Your task to perform on an android device: set default search engine in the chrome app Image 0: 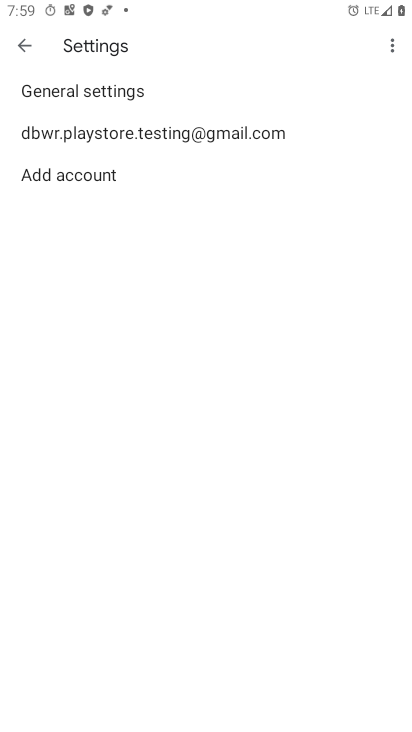
Step 0: press home button
Your task to perform on an android device: set default search engine in the chrome app Image 1: 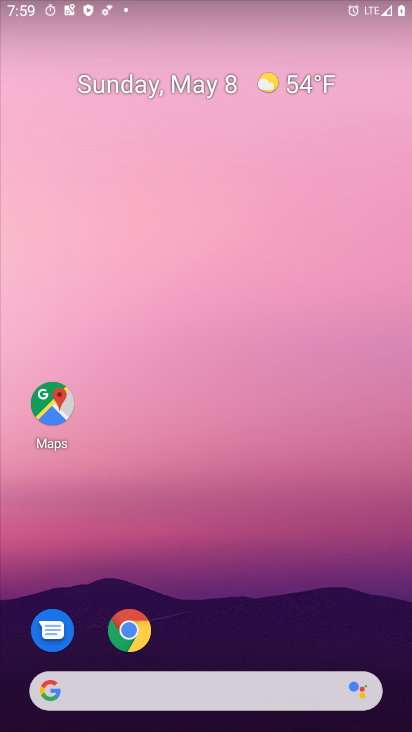
Step 1: drag from (227, 662) to (306, 41)
Your task to perform on an android device: set default search engine in the chrome app Image 2: 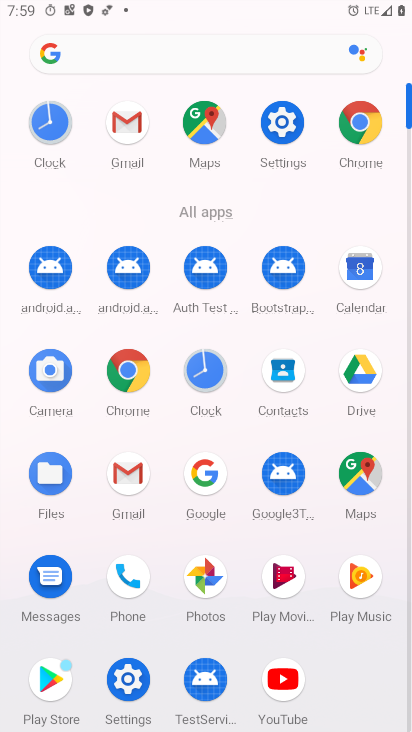
Step 2: click (135, 364)
Your task to perform on an android device: set default search engine in the chrome app Image 3: 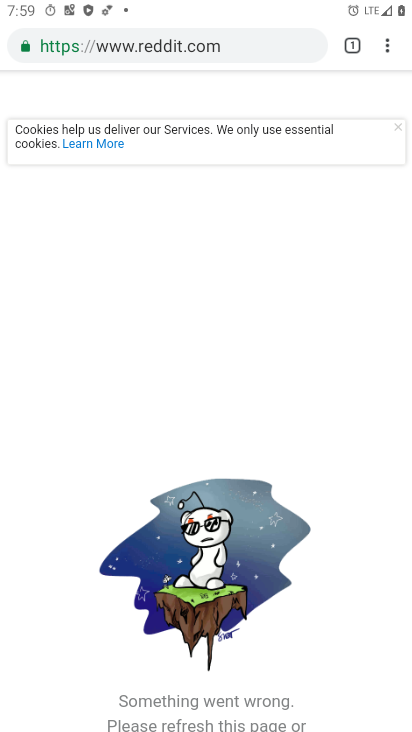
Step 3: press back button
Your task to perform on an android device: set default search engine in the chrome app Image 4: 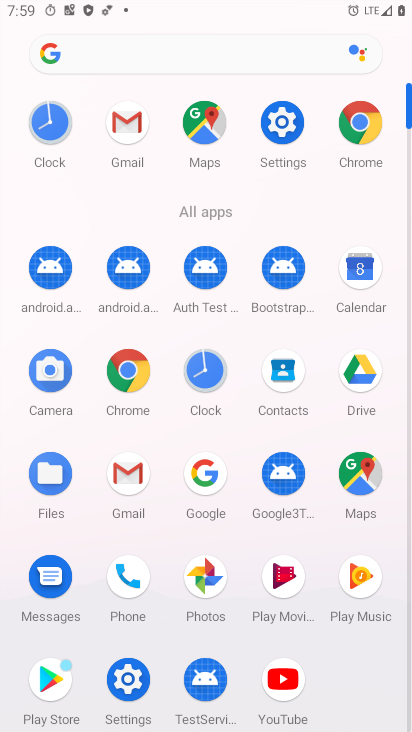
Step 4: click (345, 133)
Your task to perform on an android device: set default search engine in the chrome app Image 5: 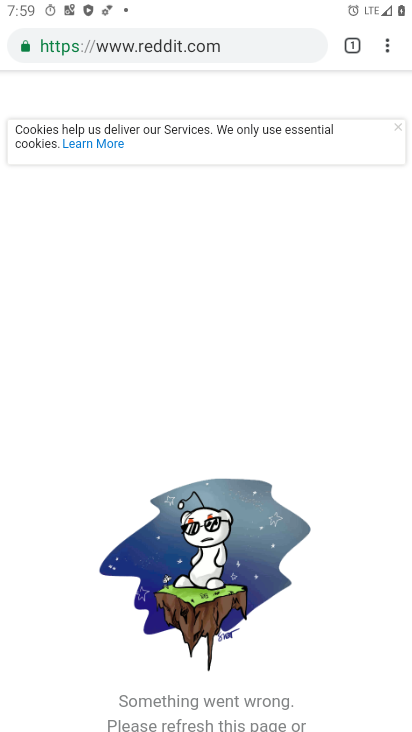
Step 5: click (380, 45)
Your task to perform on an android device: set default search engine in the chrome app Image 6: 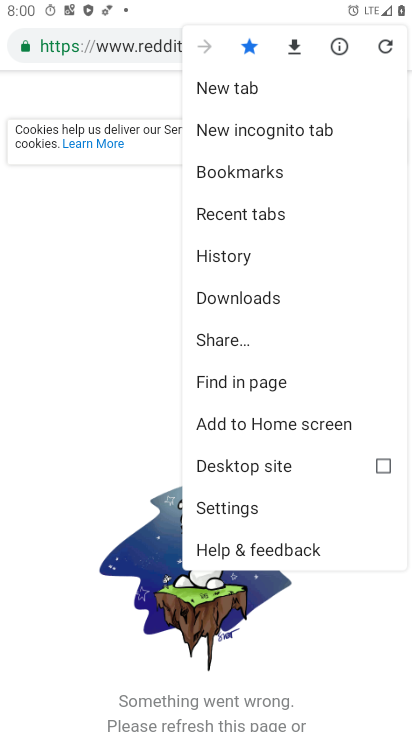
Step 6: click (227, 508)
Your task to perform on an android device: set default search engine in the chrome app Image 7: 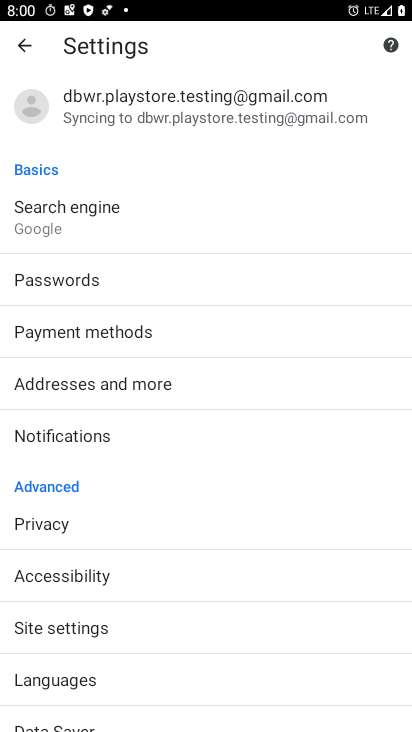
Step 7: drag from (114, 635) to (93, 227)
Your task to perform on an android device: set default search engine in the chrome app Image 8: 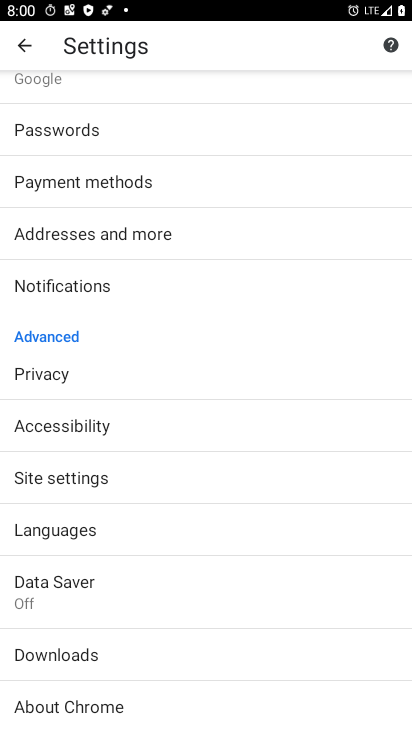
Step 8: click (59, 380)
Your task to perform on an android device: set default search engine in the chrome app Image 9: 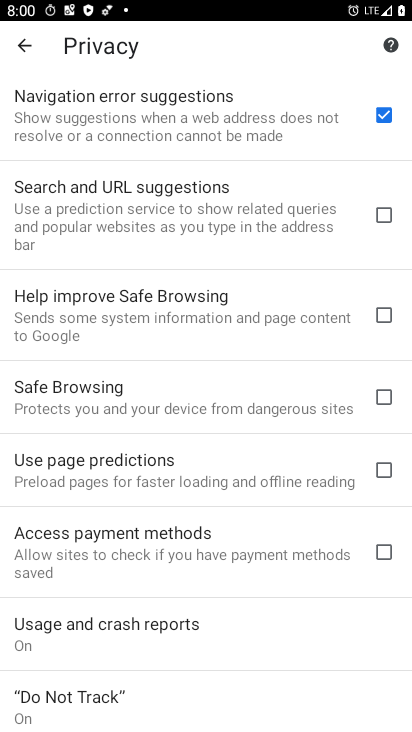
Step 9: click (19, 43)
Your task to perform on an android device: set default search engine in the chrome app Image 10: 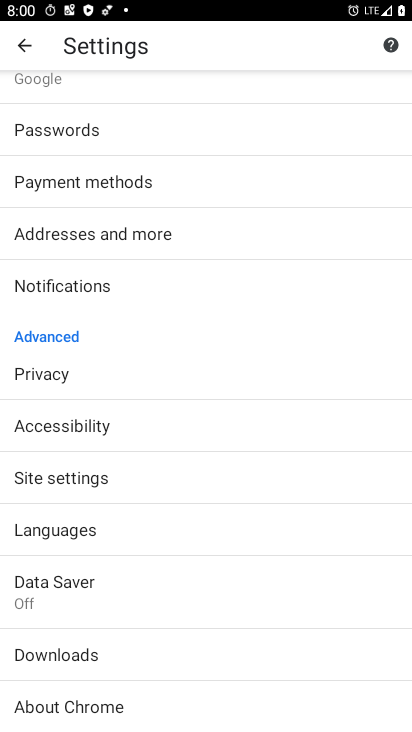
Step 10: drag from (42, 218) to (51, 517)
Your task to perform on an android device: set default search engine in the chrome app Image 11: 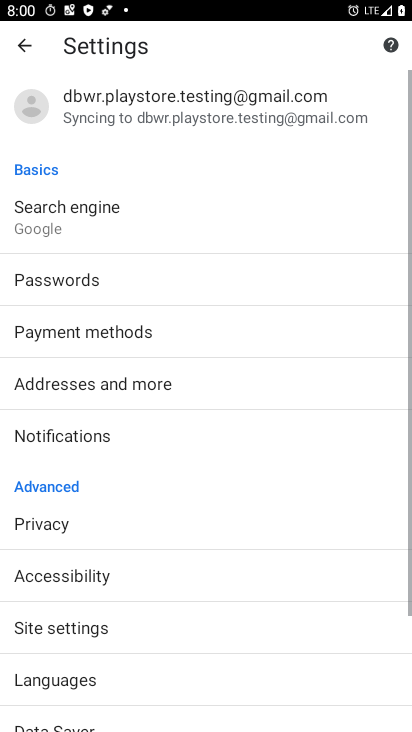
Step 11: click (61, 217)
Your task to perform on an android device: set default search engine in the chrome app Image 12: 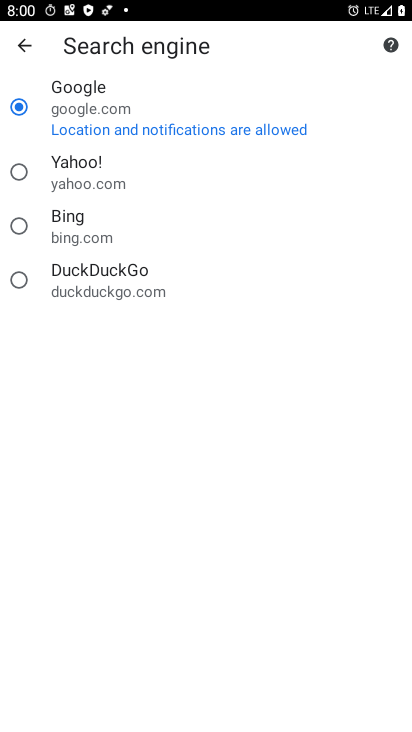
Step 12: task complete